Your task to perform on an android device: Add "razer nari" to the cart on target.com, then select checkout. Image 0: 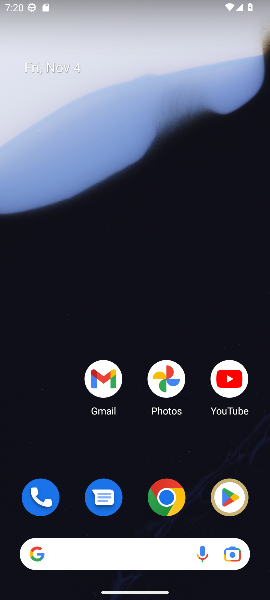
Step 0: click (168, 498)
Your task to perform on an android device: Add "razer nari" to the cart on target.com, then select checkout. Image 1: 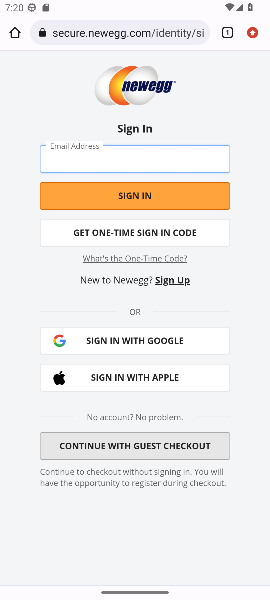
Step 1: click (102, 32)
Your task to perform on an android device: Add "razer nari" to the cart on target.com, then select checkout. Image 2: 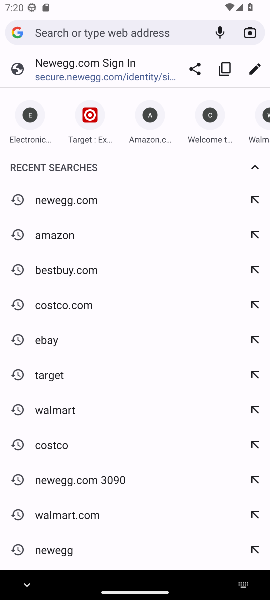
Step 2: click (41, 377)
Your task to perform on an android device: Add "razer nari" to the cart on target.com, then select checkout. Image 3: 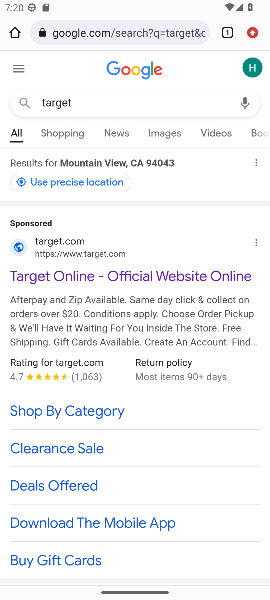
Step 3: drag from (137, 450) to (135, 169)
Your task to perform on an android device: Add "razer nari" to the cart on target.com, then select checkout. Image 4: 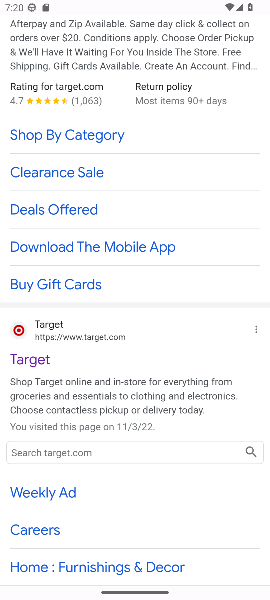
Step 4: click (46, 347)
Your task to perform on an android device: Add "razer nari" to the cart on target.com, then select checkout. Image 5: 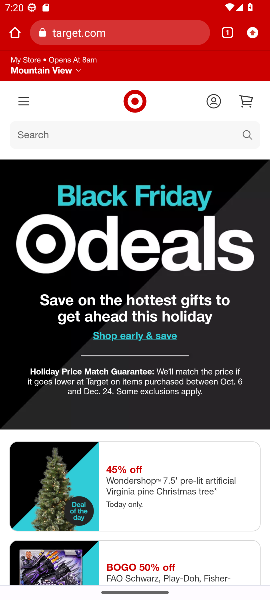
Step 5: click (231, 137)
Your task to perform on an android device: Add "razer nari" to the cart on target.com, then select checkout. Image 6: 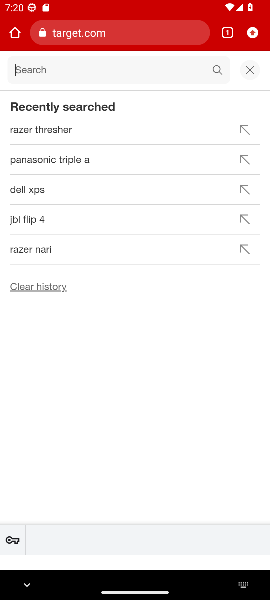
Step 6: type "razer nari"
Your task to perform on an android device: Add "razer nari" to the cart on target.com, then select checkout. Image 7: 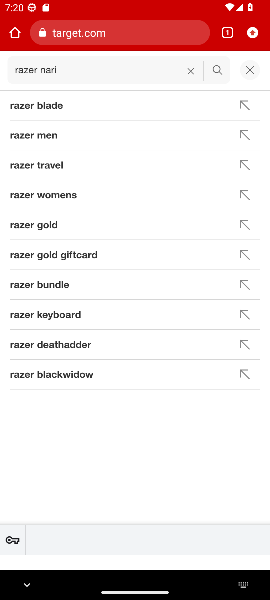
Step 7: click (223, 67)
Your task to perform on an android device: Add "razer nari" to the cart on target.com, then select checkout. Image 8: 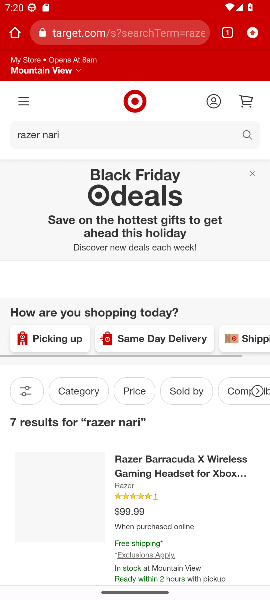
Step 8: task complete